Your task to perform on an android device: toggle location history Image 0: 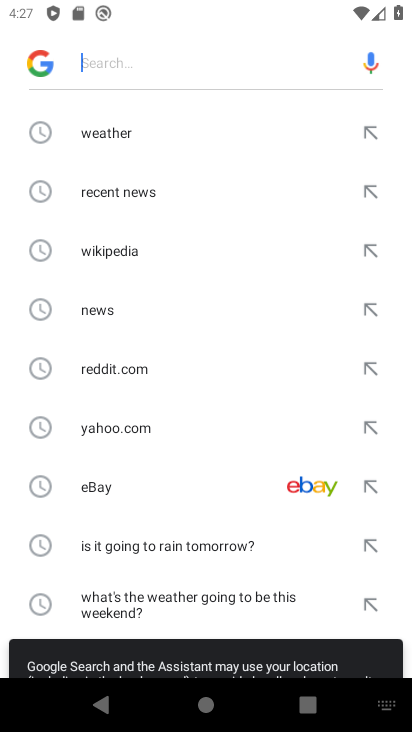
Step 0: press home button
Your task to perform on an android device: toggle location history Image 1: 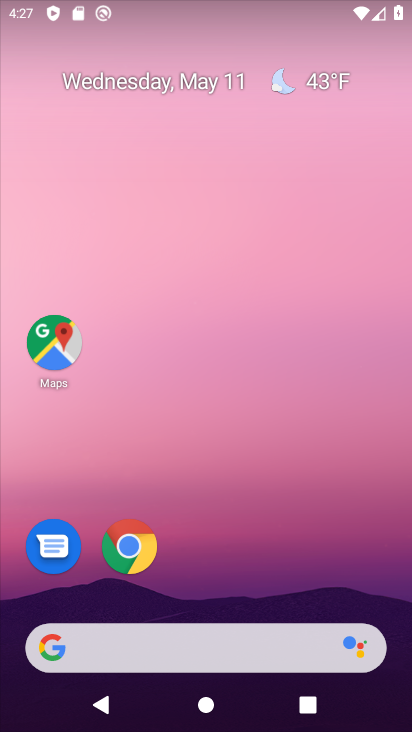
Step 1: drag from (163, 623) to (211, 255)
Your task to perform on an android device: toggle location history Image 2: 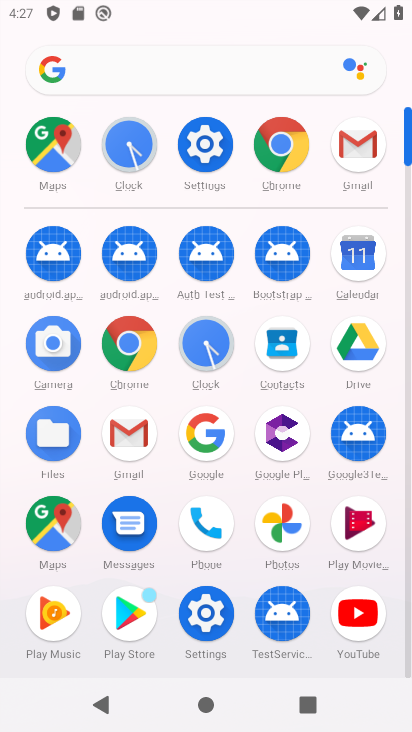
Step 2: click (206, 135)
Your task to perform on an android device: toggle location history Image 3: 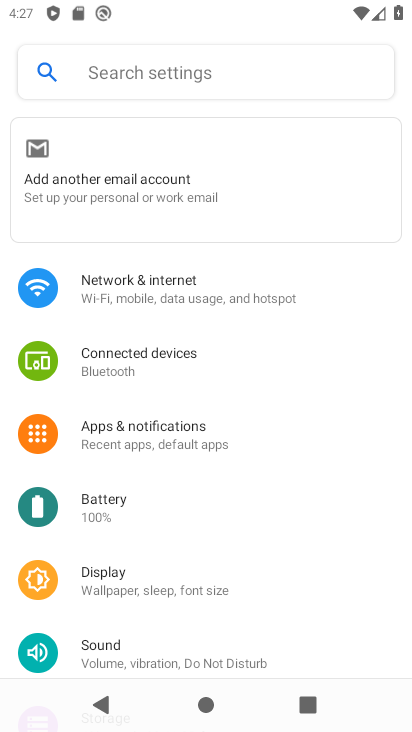
Step 3: drag from (145, 656) to (141, 318)
Your task to perform on an android device: toggle location history Image 4: 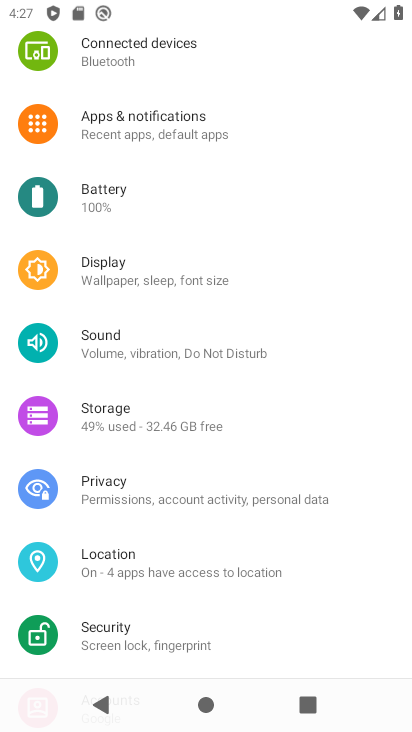
Step 4: click (125, 568)
Your task to perform on an android device: toggle location history Image 5: 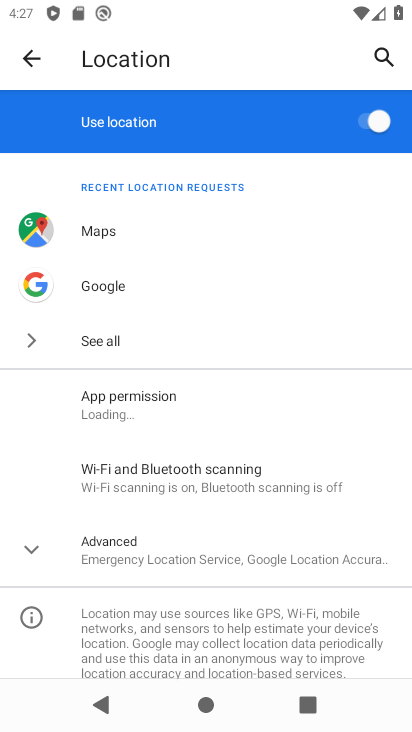
Step 5: click (113, 556)
Your task to perform on an android device: toggle location history Image 6: 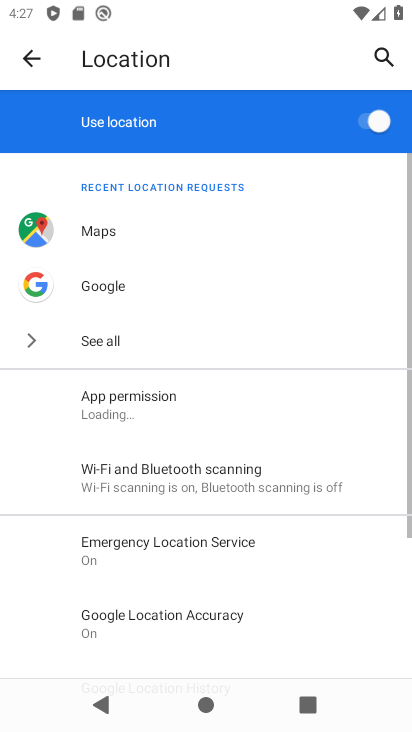
Step 6: drag from (156, 640) to (168, 361)
Your task to perform on an android device: toggle location history Image 7: 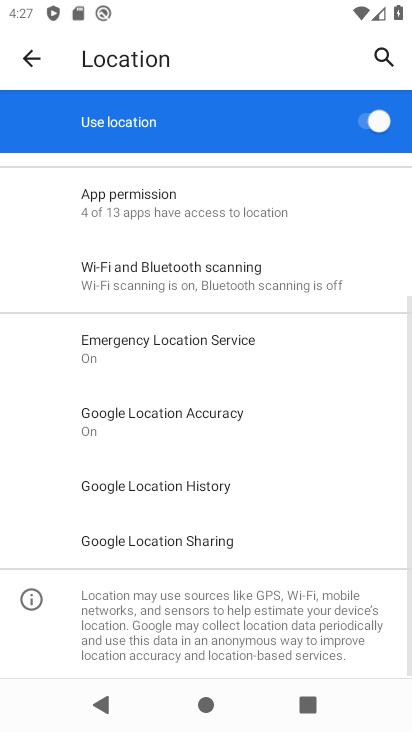
Step 7: click (165, 500)
Your task to perform on an android device: toggle location history Image 8: 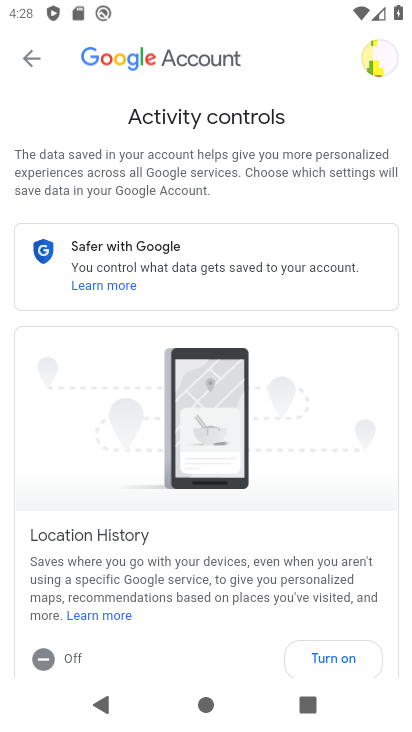
Step 8: click (340, 662)
Your task to perform on an android device: toggle location history Image 9: 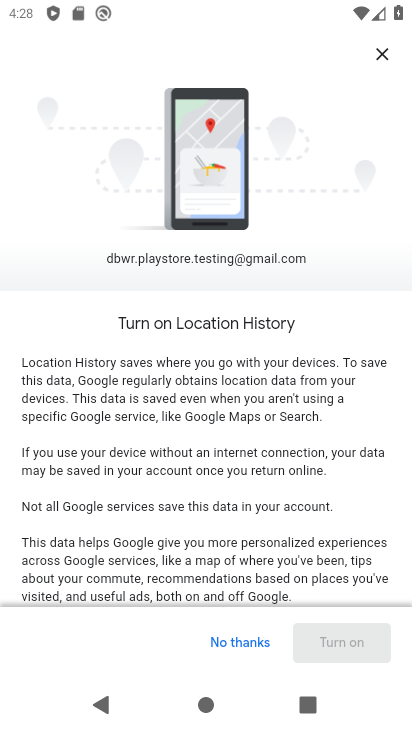
Step 9: drag from (322, 567) to (299, 219)
Your task to perform on an android device: toggle location history Image 10: 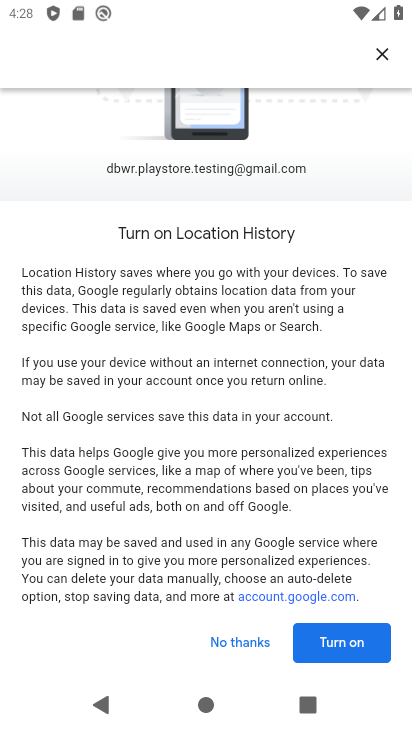
Step 10: click (363, 639)
Your task to perform on an android device: toggle location history Image 11: 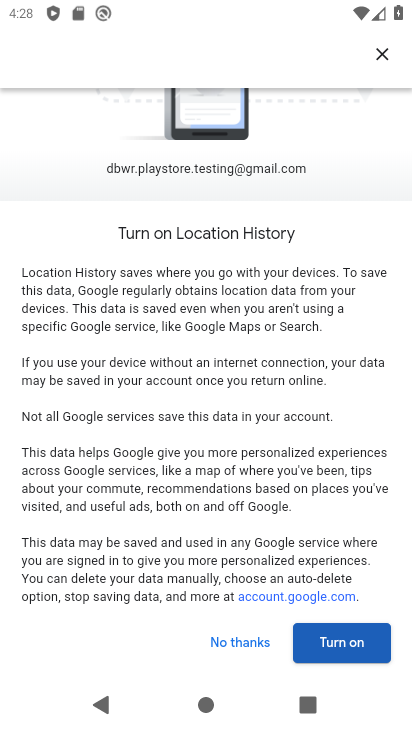
Step 11: click (349, 658)
Your task to perform on an android device: toggle location history Image 12: 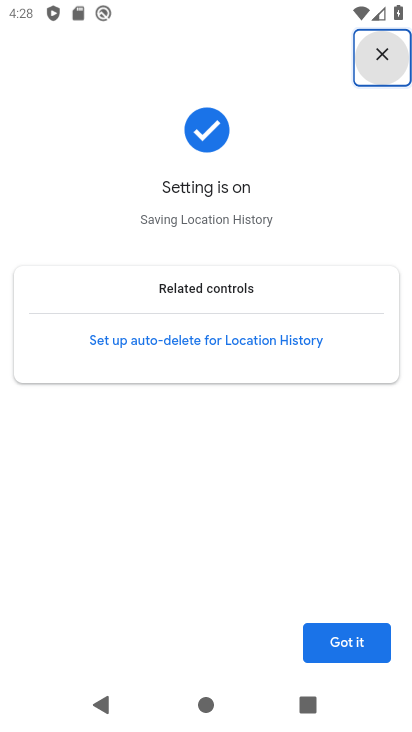
Step 12: click (349, 636)
Your task to perform on an android device: toggle location history Image 13: 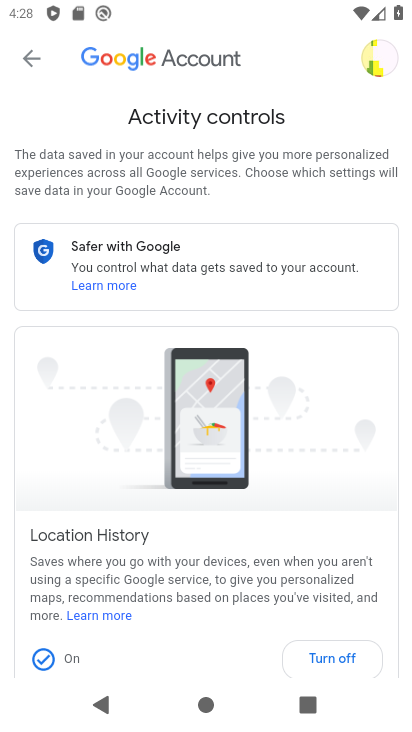
Step 13: task complete